Your task to perform on an android device: View the shopping cart on walmart.com. Image 0: 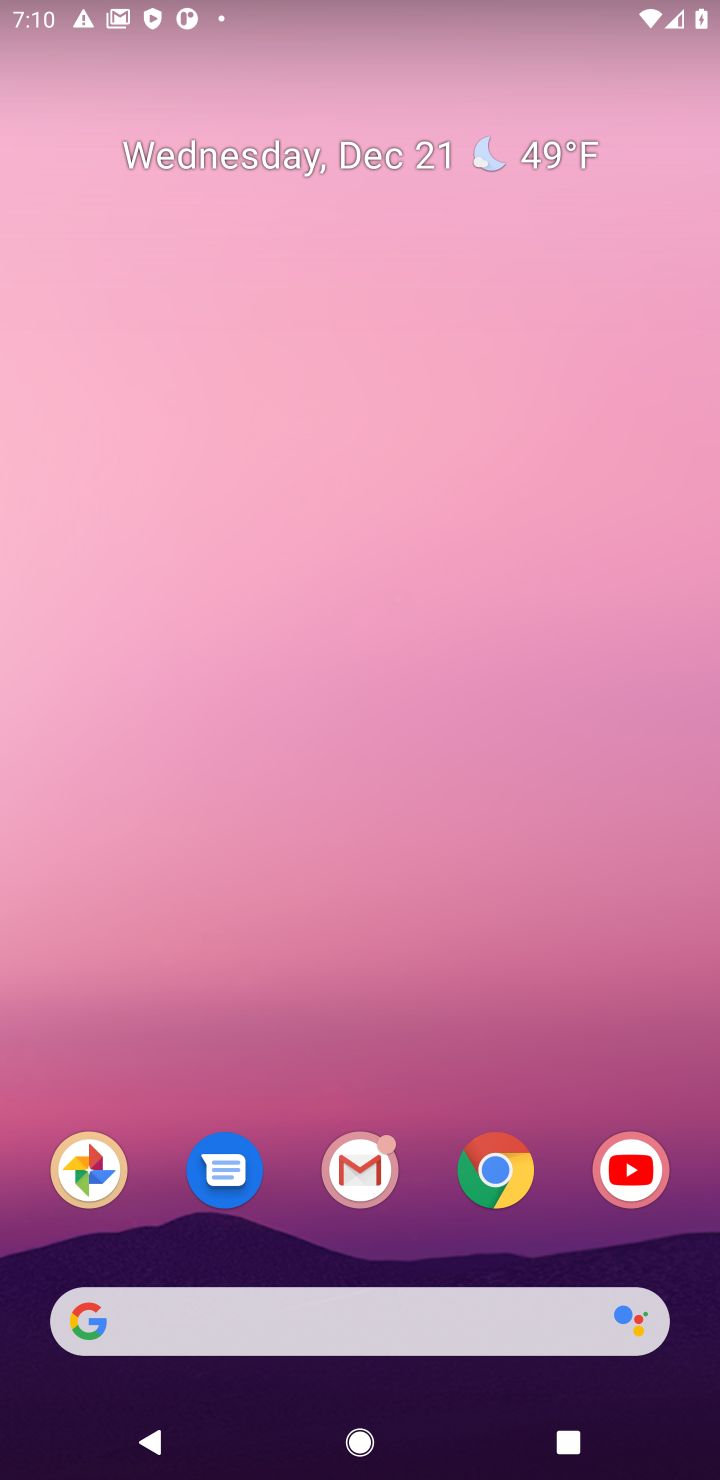
Step 0: task complete